Your task to perform on an android device: turn off picture-in-picture Image 0: 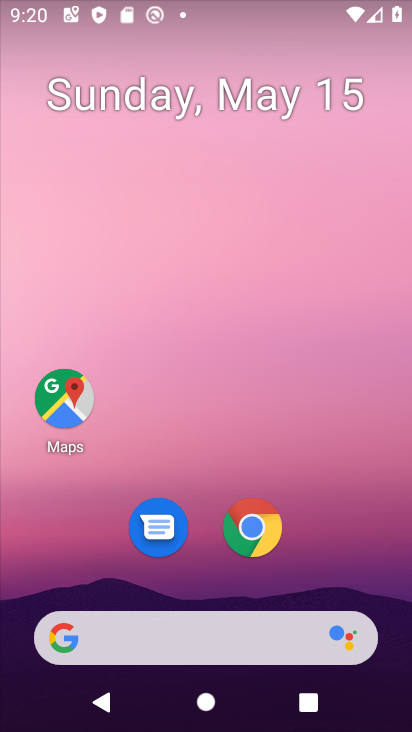
Step 0: click (258, 536)
Your task to perform on an android device: turn off picture-in-picture Image 1: 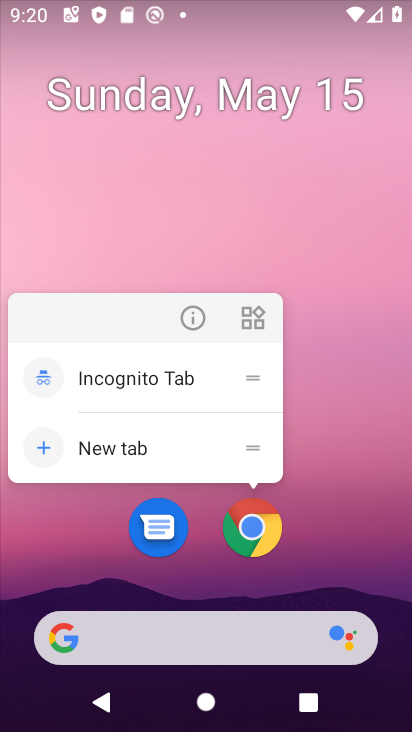
Step 1: click (188, 327)
Your task to perform on an android device: turn off picture-in-picture Image 2: 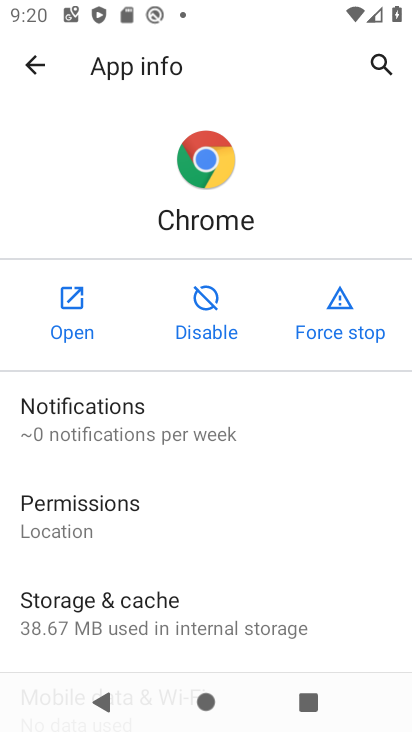
Step 2: drag from (304, 658) to (276, 322)
Your task to perform on an android device: turn off picture-in-picture Image 3: 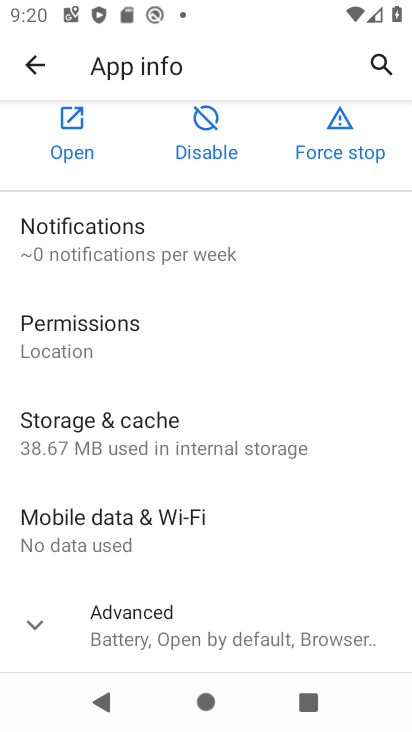
Step 3: click (286, 630)
Your task to perform on an android device: turn off picture-in-picture Image 4: 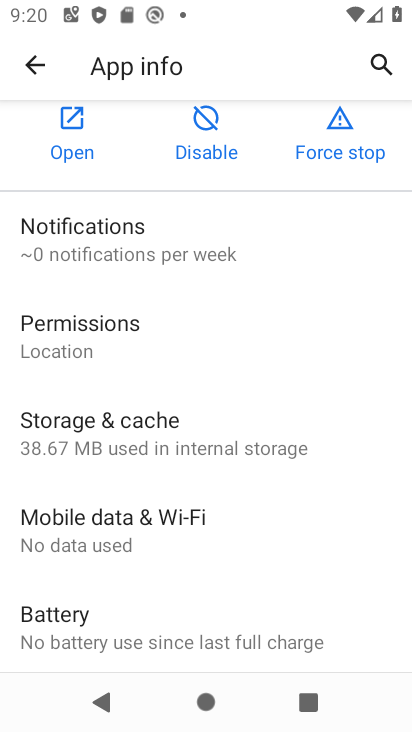
Step 4: drag from (286, 630) to (269, 410)
Your task to perform on an android device: turn off picture-in-picture Image 5: 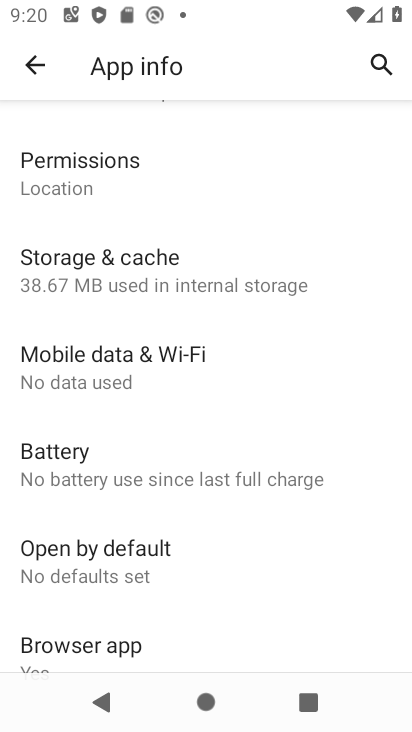
Step 5: drag from (300, 617) to (246, 247)
Your task to perform on an android device: turn off picture-in-picture Image 6: 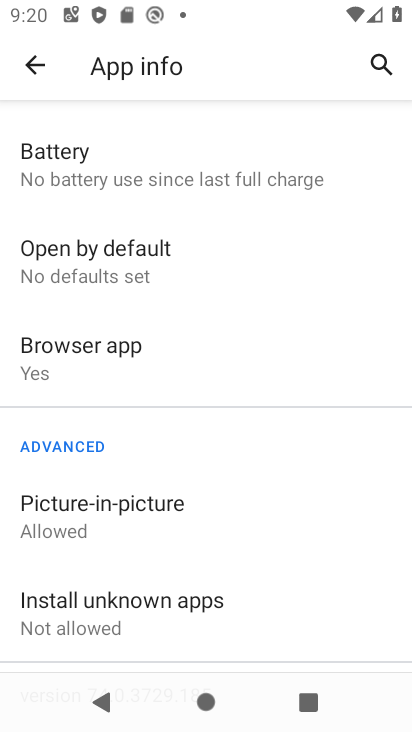
Step 6: click (316, 496)
Your task to perform on an android device: turn off picture-in-picture Image 7: 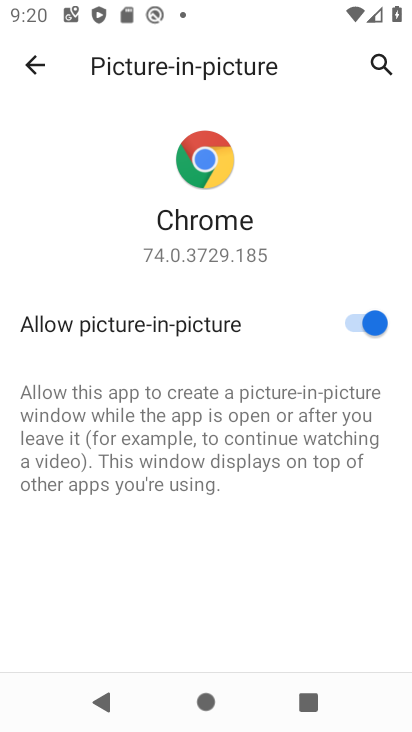
Step 7: click (350, 310)
Your task to perform on an android device: turn off picture-in-picture Image 8: 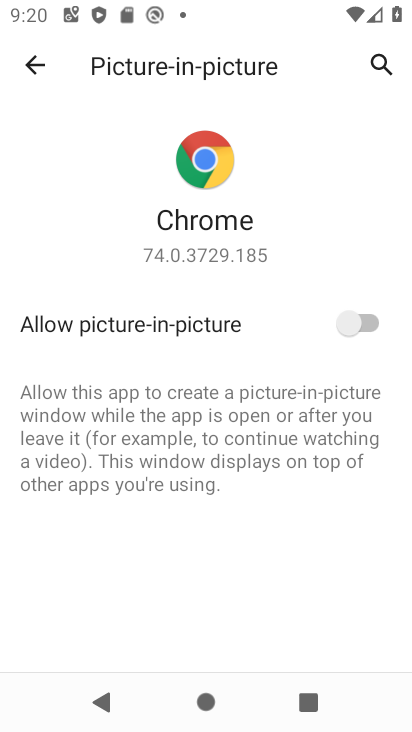
Step 8: task complete